Your task to perform on an android device: remove spam from my inbox in the gmail app Image 0: 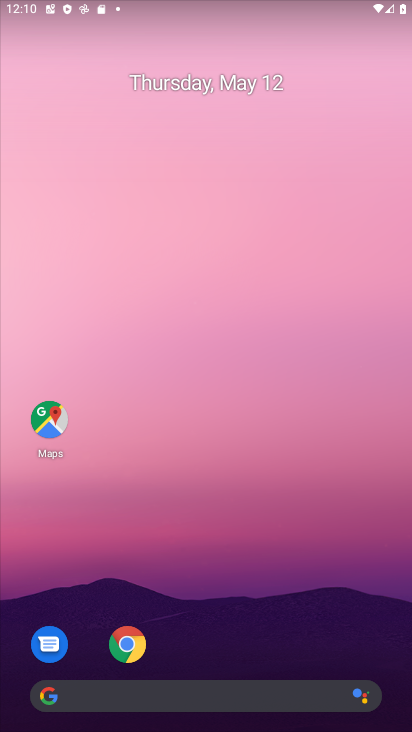
Step 0: drag from (295, 499) to (290, 125)
Your task to perform on an android device: remove spam from my inbox in the gmail app Image 1: 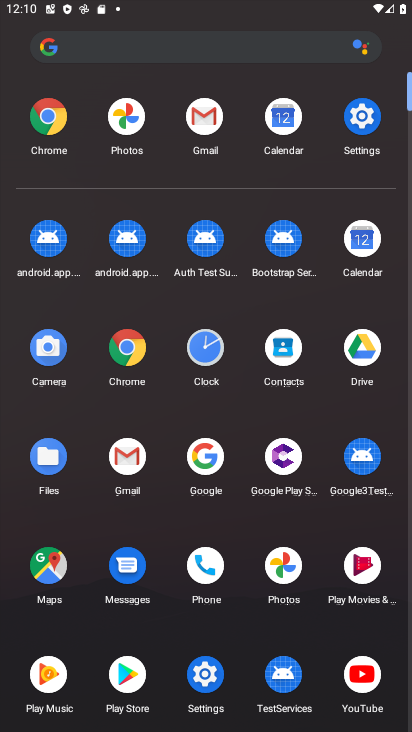
Step 1: click (125, 471)
Your task to perform on an android device: remove spam from my inbox in the gmail app Image 2: 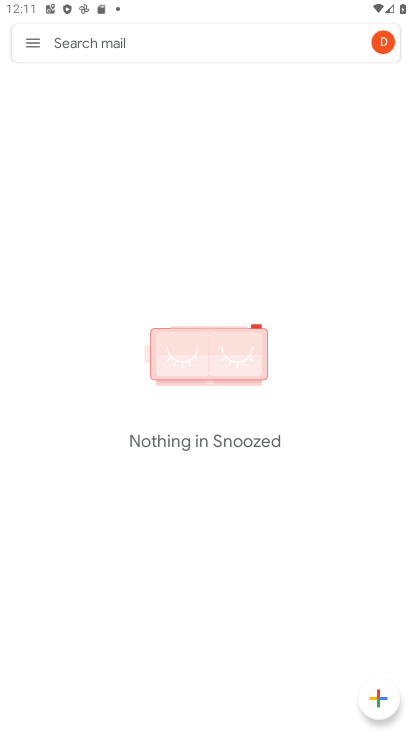
Step 2: click (29, 45)
Your task to perform on an android device: remove spam from my inbox in the gmail app Image 3: 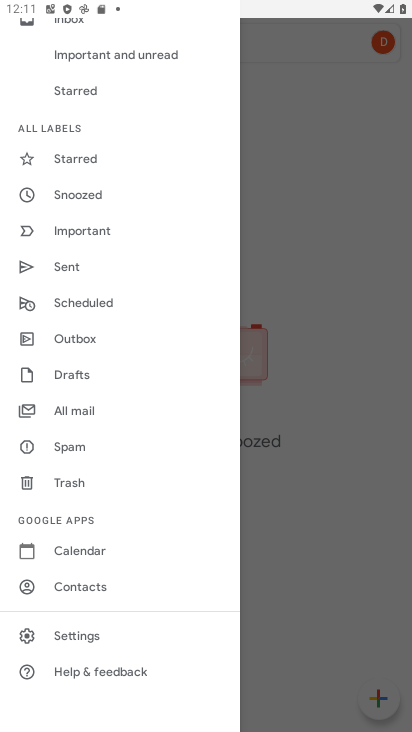
Step 3: drag from (118, 68) to (114, 375)
Your task to perform on an android device: remove spam from my inbox in the gmail app Image 4: 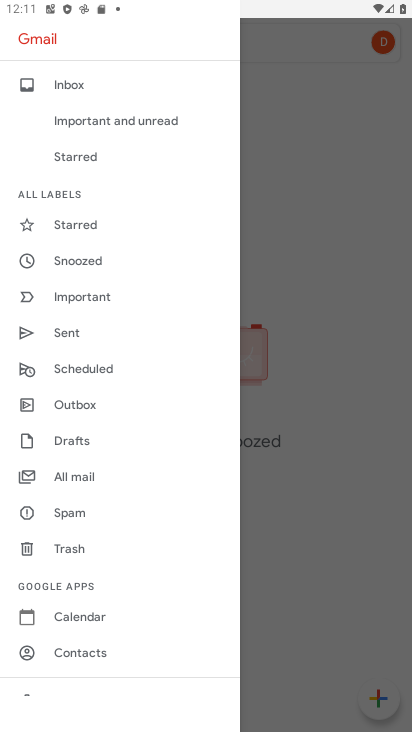
Step 4: click (102, 82)
Your task to perform on an android device: remove spam from my inbox in the gmail app Image 5: 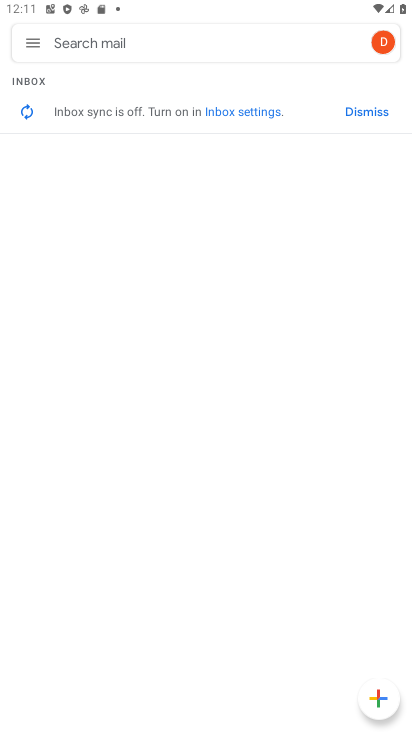
Step 5: click (361, 113)
Your task to perform on an android device: remove spam from my inbox in the gmail app Image 6: 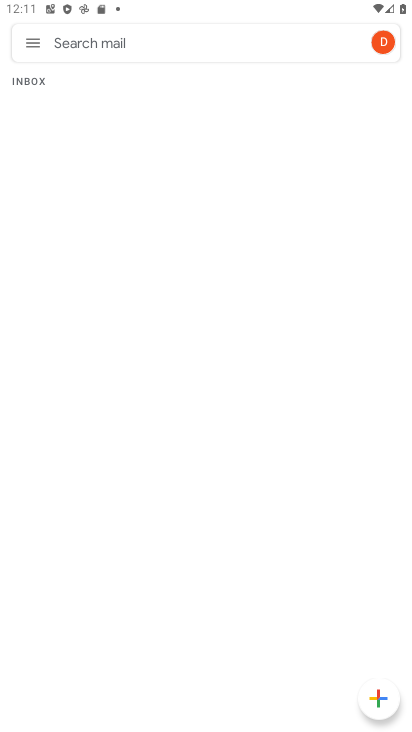
Step 6: task complete